Your task to perform on an android device: Open location settings Image 0: 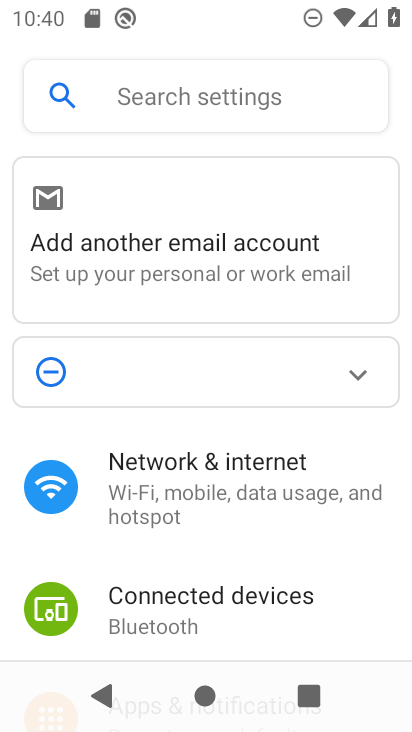
Step 0: press home button
Your task to perform on an android device: Open location settings Image 1: 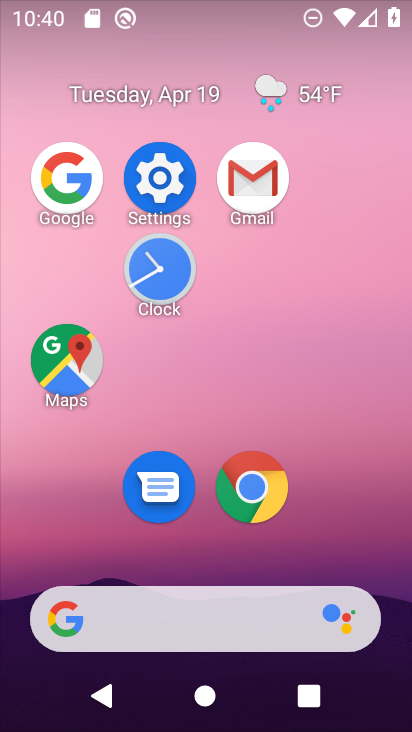
Step 1: click (167, 164)
Your task to perform on an android device: Open location settings Image 2: 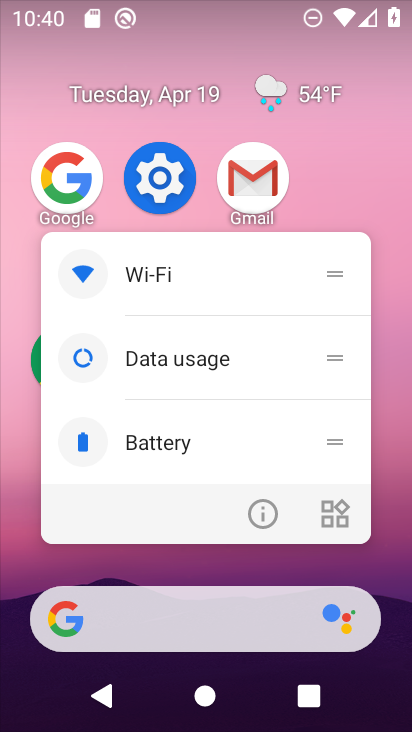
Step 2: click (174, 211)
Your task to perform on an android device: Open location settings Image 3: 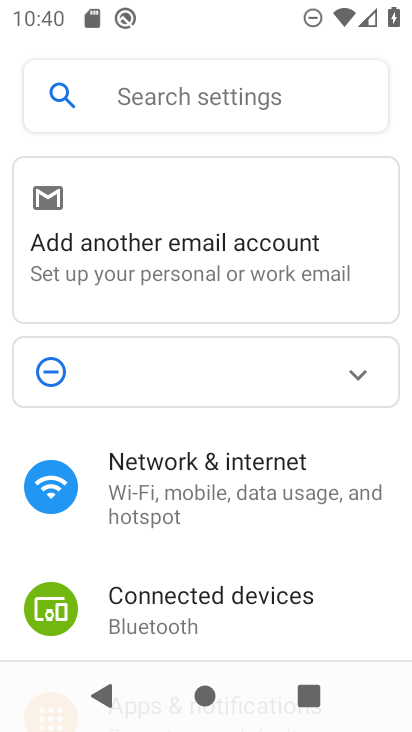
Step 3: drag from (203, 502) to (221, 92)
Your task to perform on an android device: Open location settings Image 4: 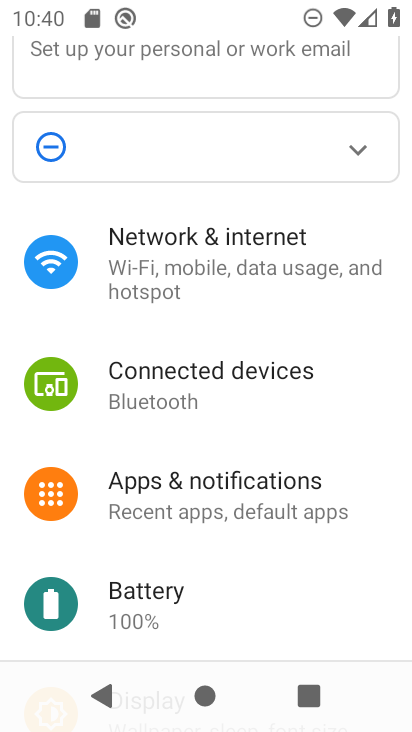
Step 4: drag from (221, 584) to (218, 70)
Your task to perform on an android device: Open location settings Image 5: 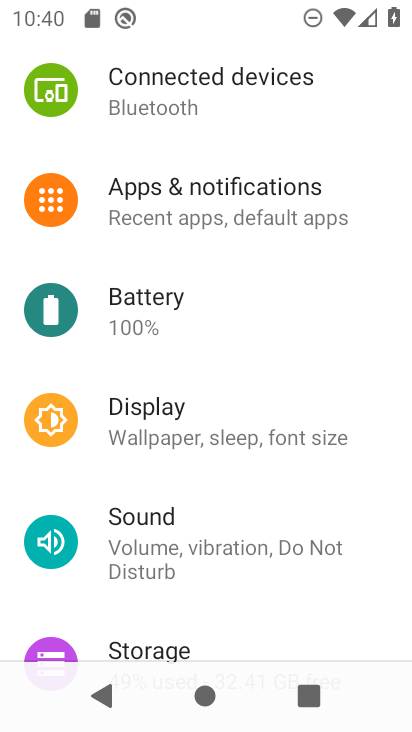
Step 5: drag from (210, 582) to (240, 144)
Your task to perform on an android device: Open location settings Image 6: 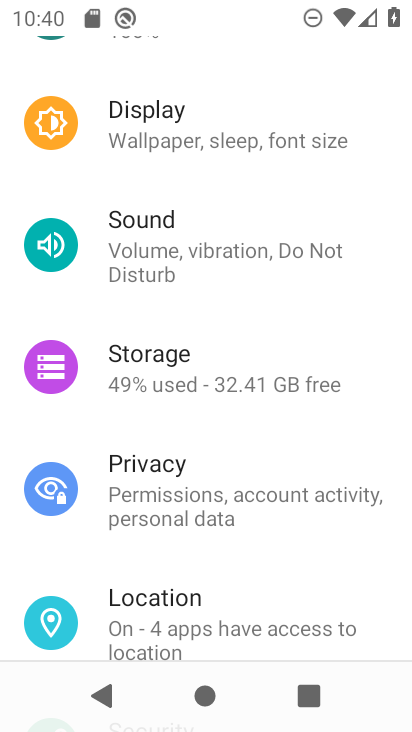
Step 6: click (240, 606)
Your task to perform on an android device: Open location settings Image 7: 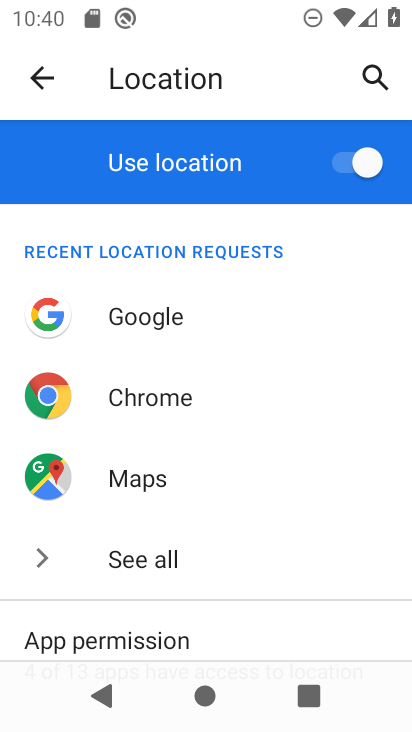
Step 7: task complete